Your task to perform on an android device: Open the phone app and click the voicemail tab. Image 0: 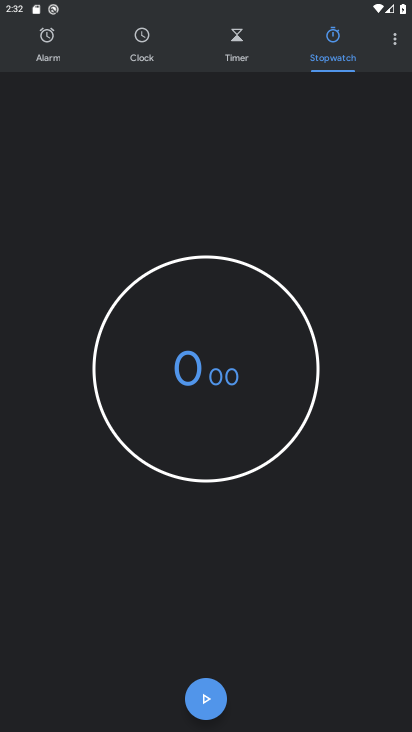
Step 0: press home button
Your task to perform on an android device: Open the phone app and click the voicemail tab. Image 1: 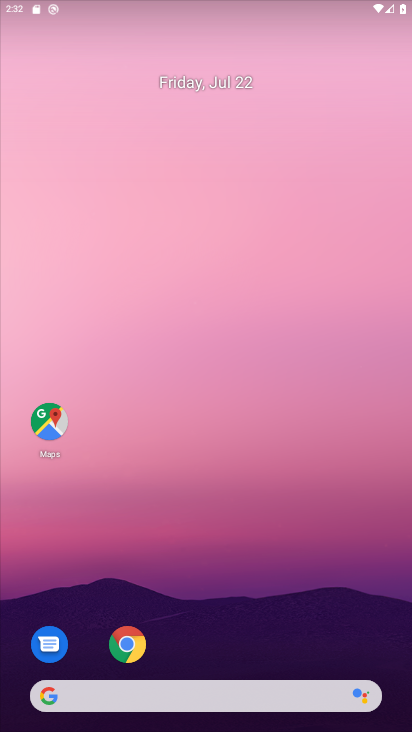
Step 1: drag from (257, 671) to (283, 249)
Your task to perform on an android device: Open the phone app and click the voicemail tab. Image 2: 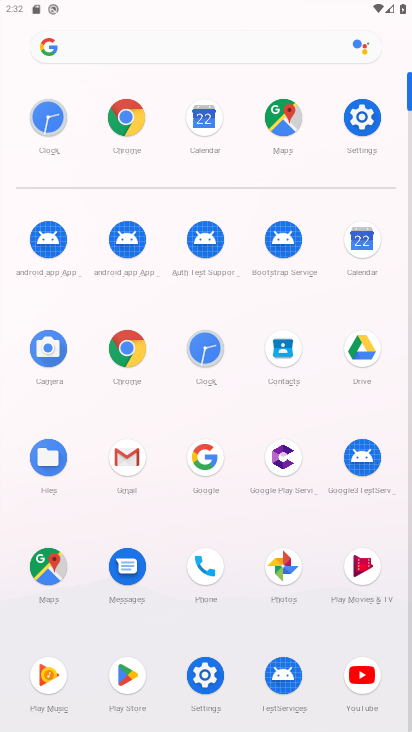
Step 2: click (210, 556)
Your task to perform on an android device: Open the phone app and click the voicemail tab. Image 3: 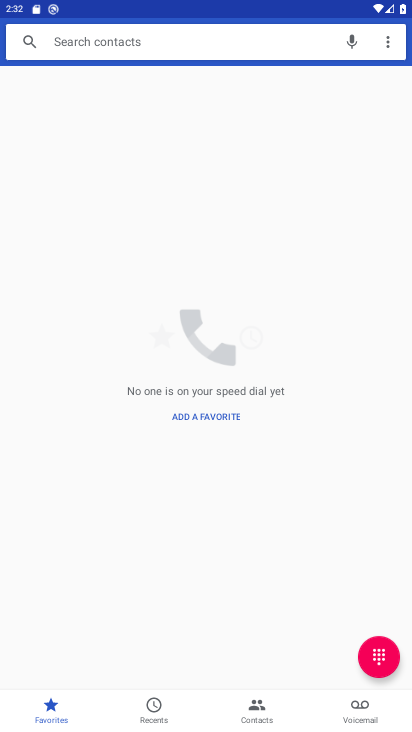
Step 3: click (356, 692)
Your task to perform on an android device: Open the phone app and click the voicemail tab. Image 4: 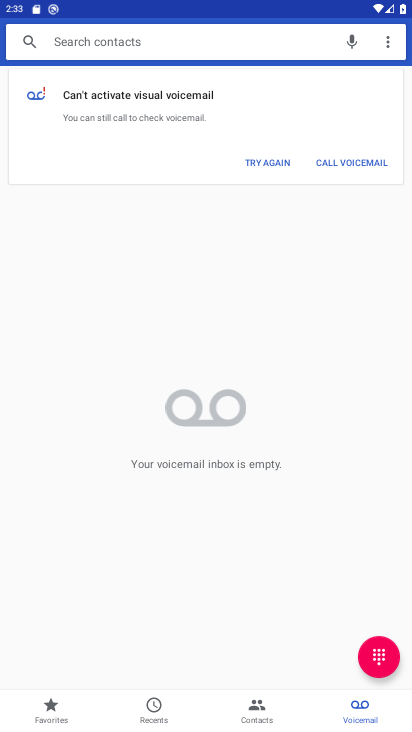
Step 4: click (362, 701)
Your task to perform on an android device: Open the phone app and click the voicemail tab. Image 5: 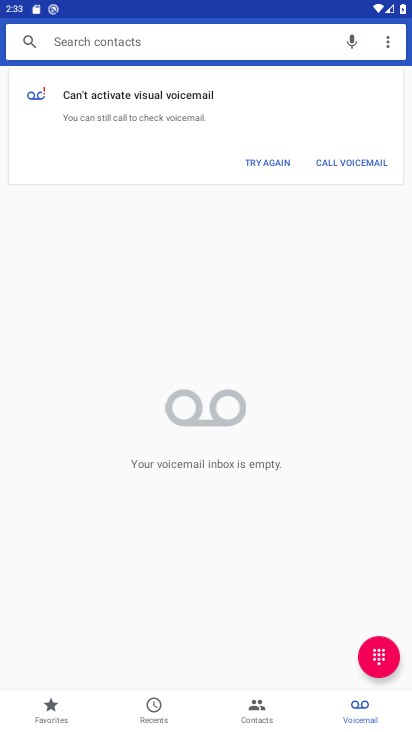
Step 5: task complete